Your task to perform on an android device: check google app version Image 0: 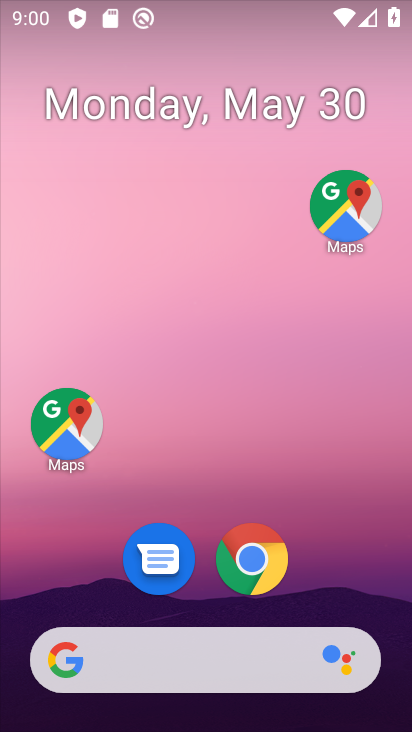
Step 0: drag from (331, 514) to (254, 120)
Your task to perform on an android device: check google app version Image 1: 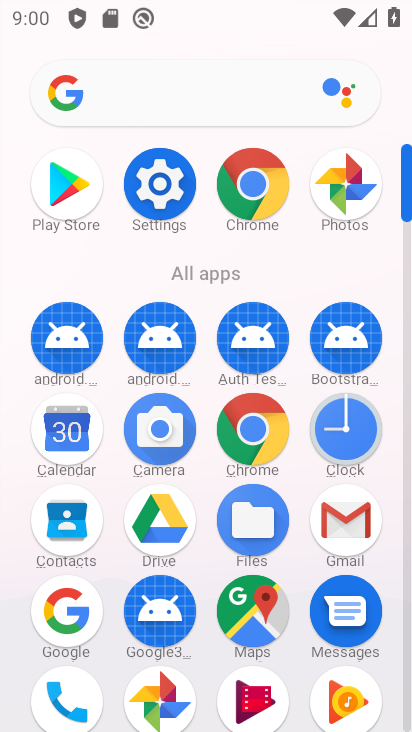
Step 1: drag from (205, 645) to (237, 213)
Your task to perform on an android device: check google app version Image 2: 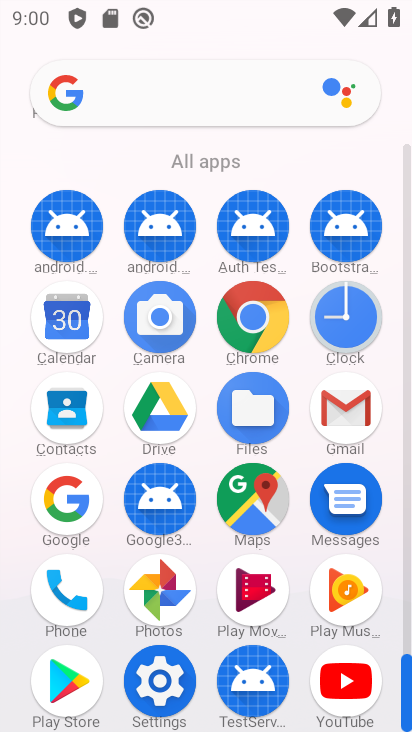
Step 2: click (69, 508)
Your task to perform on an android device: check google app version Image 3: 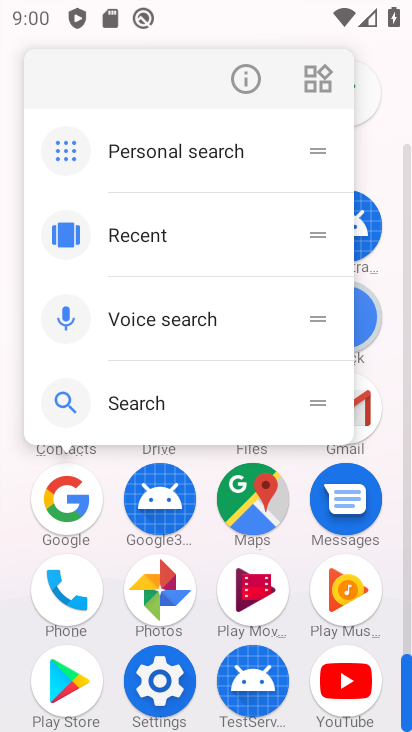
Step 3: click (243, 76)
Your task to perform on an android device: check google app version Image 4: 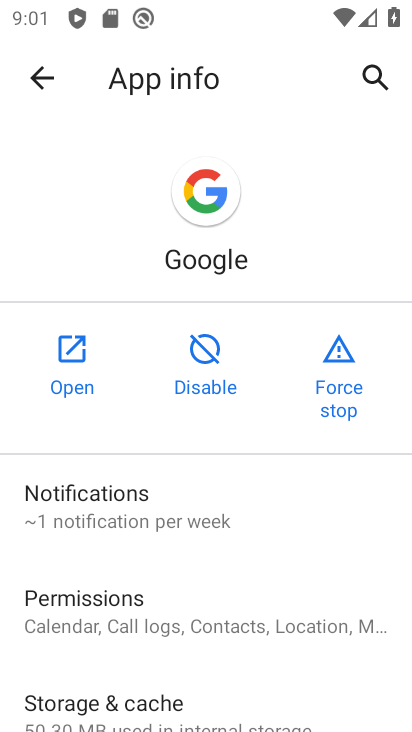
Step 4: drag from (232, 609) to (231, 141)
Your task to perform on an android device: check google app version Image 5: 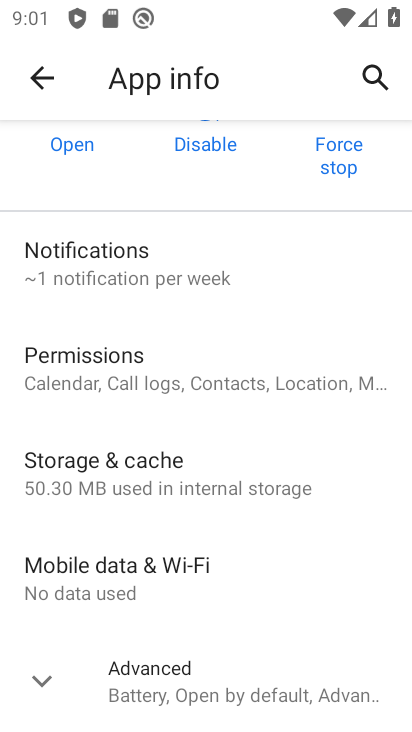
Step 5: click (216, 693)
Your task to perform on an android device: check google app version Image 6: 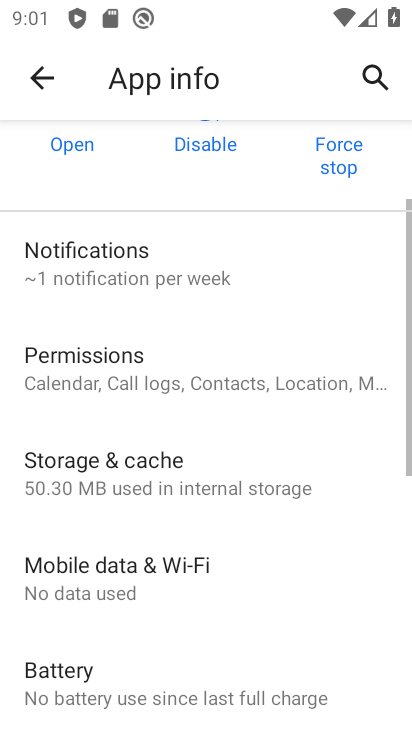
Step 6: task complete